Your task to perform on an android device: toggle priority inbox in the gmail app Image 0: 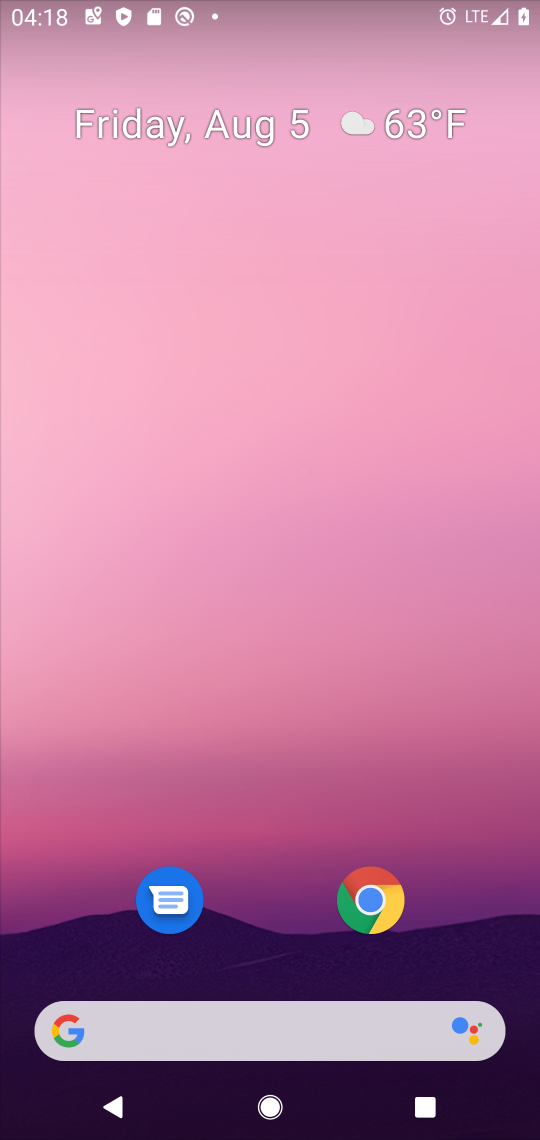
Step 0: drag from (259, 706) to (287, 25)
Your task to perform on an android device: toggle priority inbox in the gmail app Image 1: 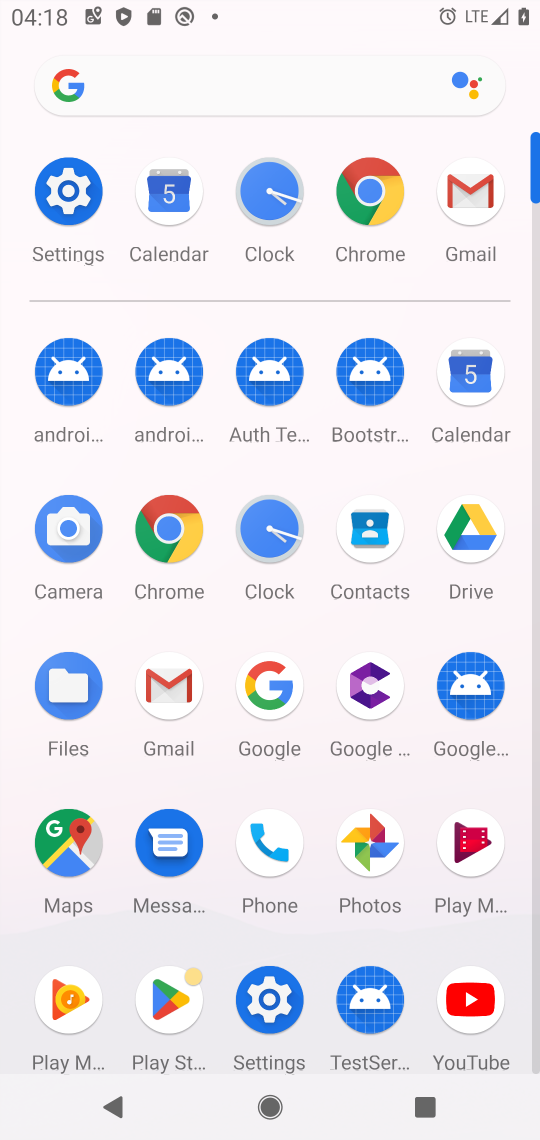
Step 1: click (483, 182)
Your task to perform on an android device: toggle priority inbox in the gmail app Image 2: 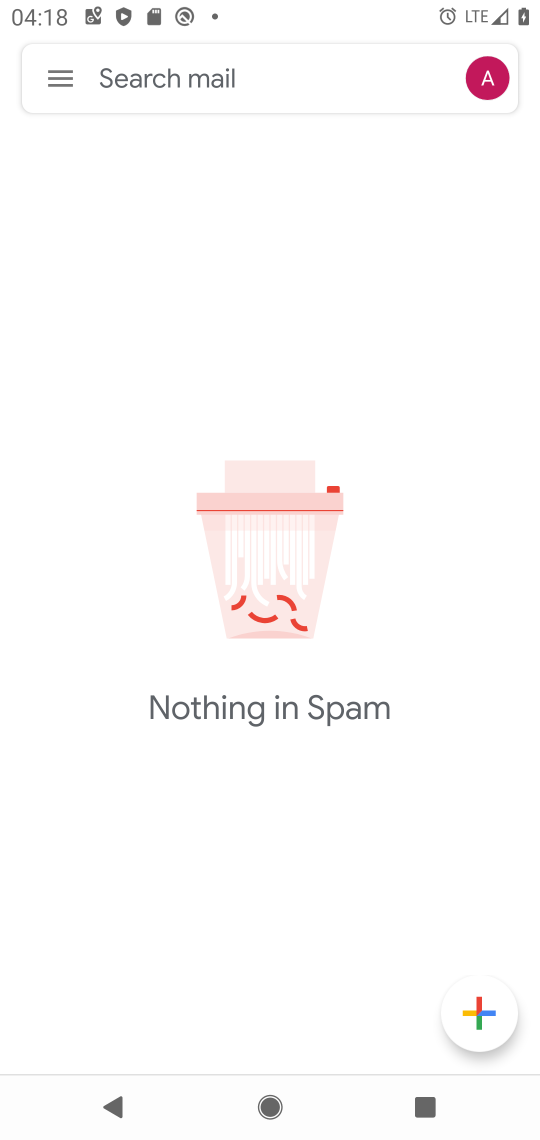
Step 2: click (60, 93)
Your task to perform on an android device: toggle priority inbox in the gmail app Image 3: 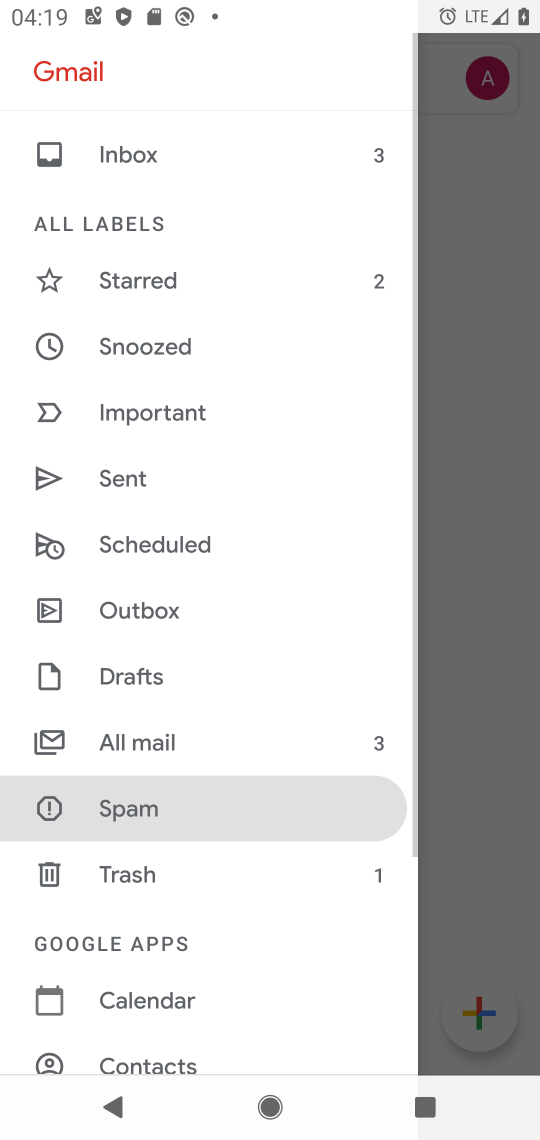
Step 3: drag from (195, 960) to (216, 141)
Your task to perform on an android device: toggle priority inbox in the gmail app Image 4: 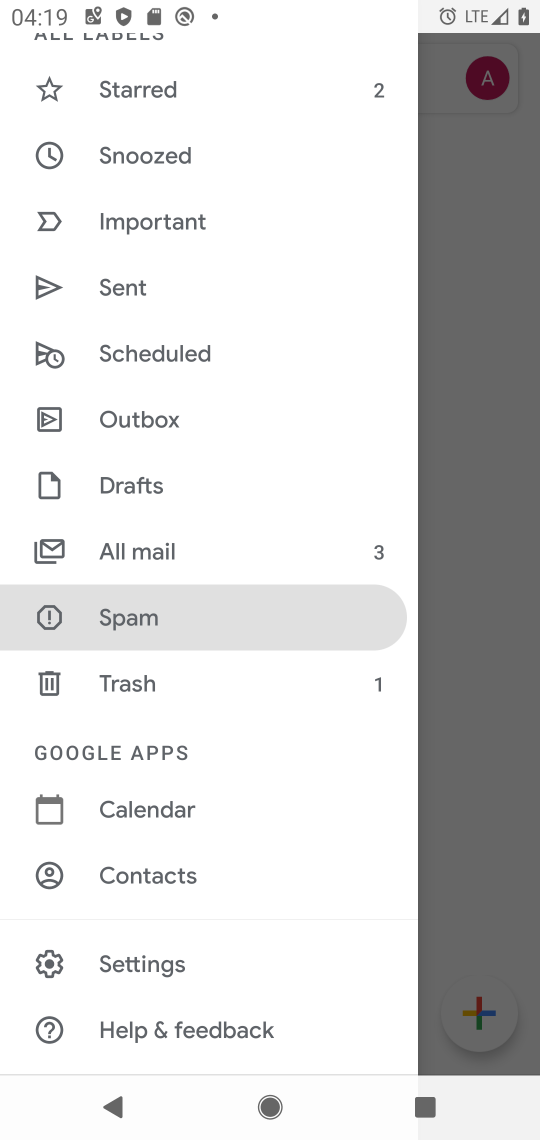
Step 4: click (159, 960)
Your task to perform on an android device: toggle priority inbox in the gmail app Image 5: 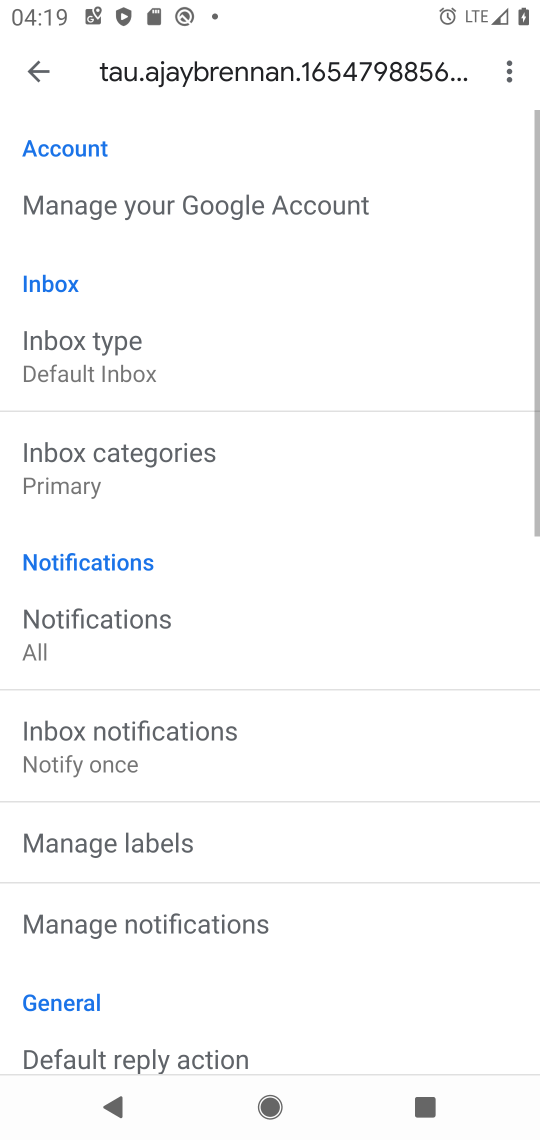
Step 5: click (73, 343)
Your task to perform on an android device: toggle priority inbox in the gmail app Image 6: 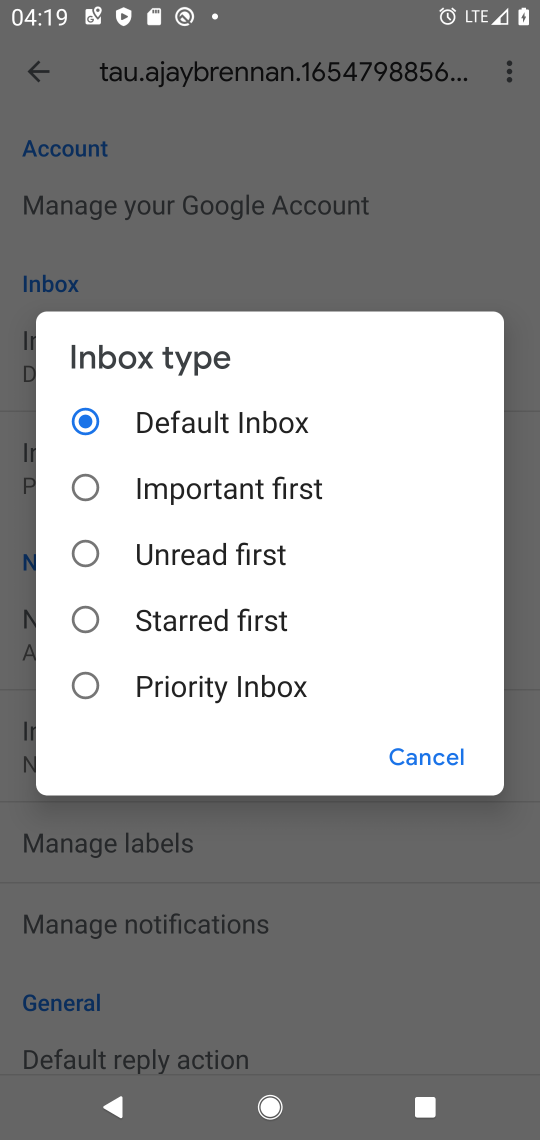
Step 6: click (96, 685)
Your task to perform on an android device: toggle priority inbox in the gmail app Image 7: 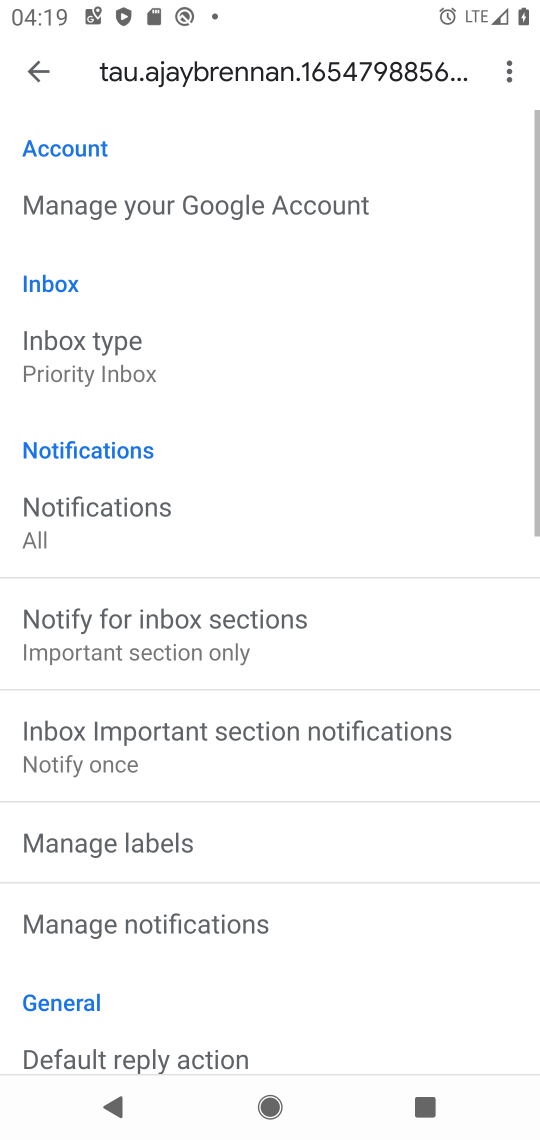
Step 7: task complete